Your task to perform on an android device: Is it going to rain today? Image 0: 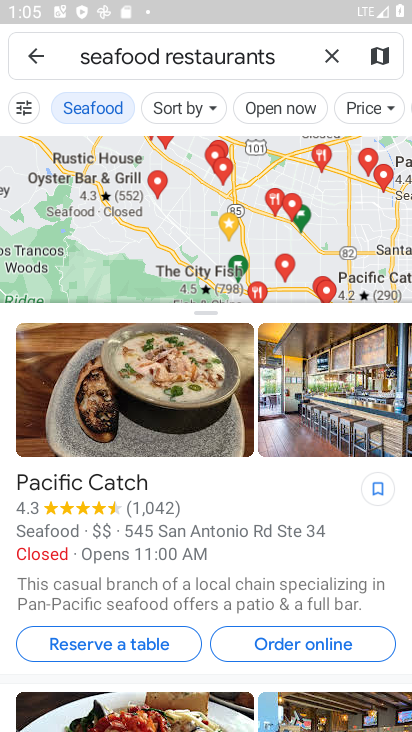
Step 0: press home button
Your task to perform on an android device: Is it going to rain today? Image 1: 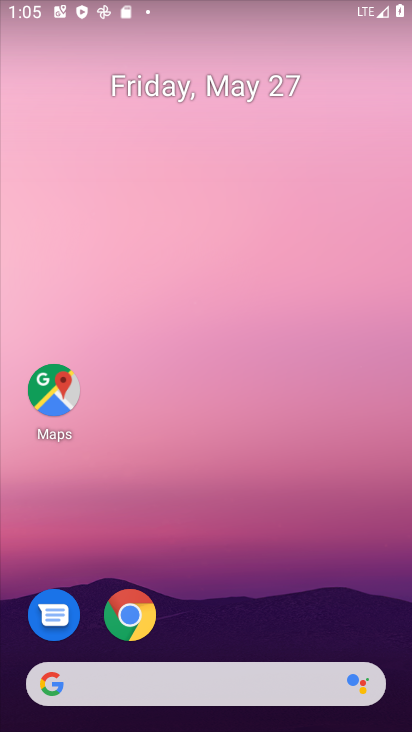
Step 1: drag from (46, 266) to (367, 238)
Your task to perform on an android device: Is it going to rain today? Image 2: 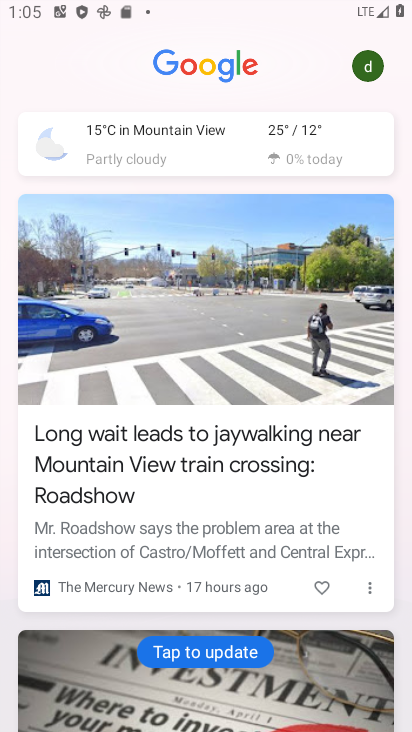
Step 2: click (208, 155)
Your task to perform on an android device: Is it going to rain today? Image 3: 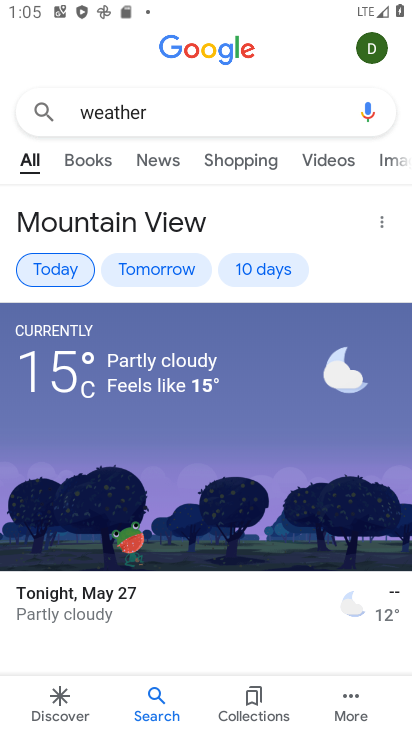
Step 3: task complete